Your task to perform on an android device: Go to settings Image 0: 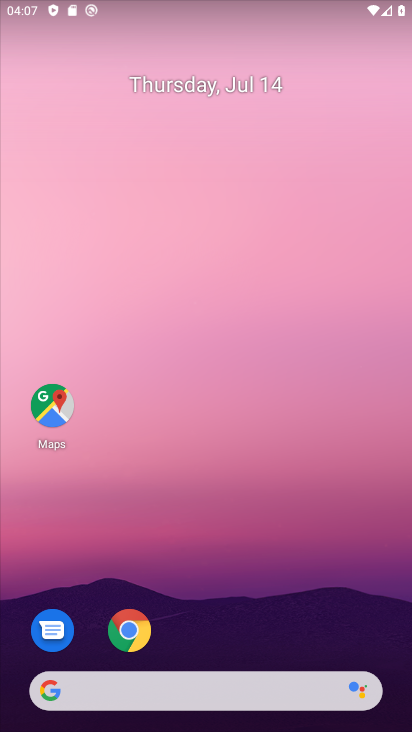
Step 0: press home button
Your task to perform on an android device: Go to settings Image 1: 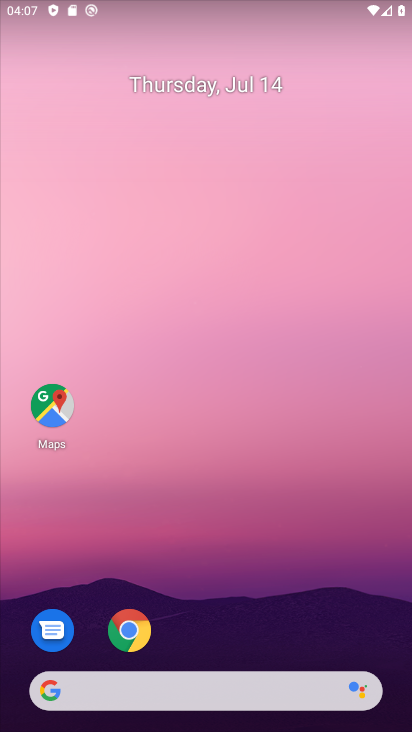
Step 1: drag from (216, 651) to (216, 131)
Your task to perform on an android device: Go to settings Image 2: 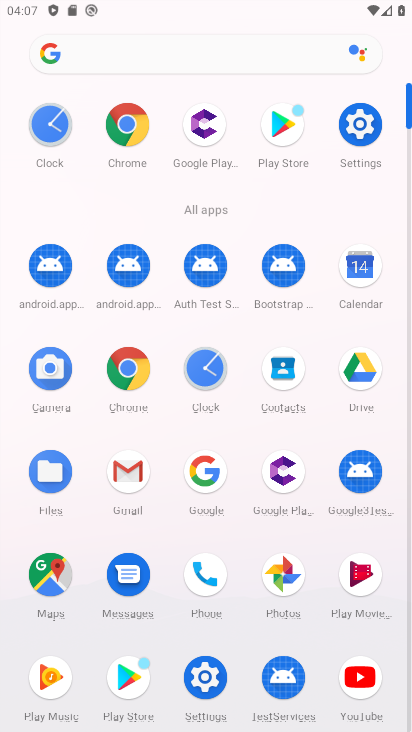
Step 2: click (357, 125)
Your task to perform on an android device: Go to settings Image 3: 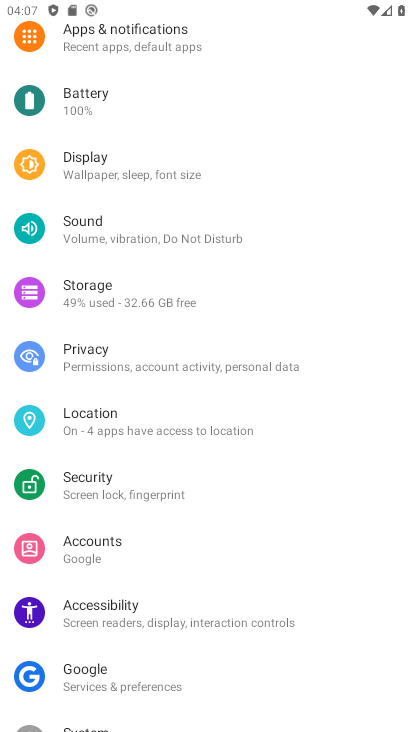
Step 3: task complete